Your task to perform on an android device: change alarm snooze length Image 0: 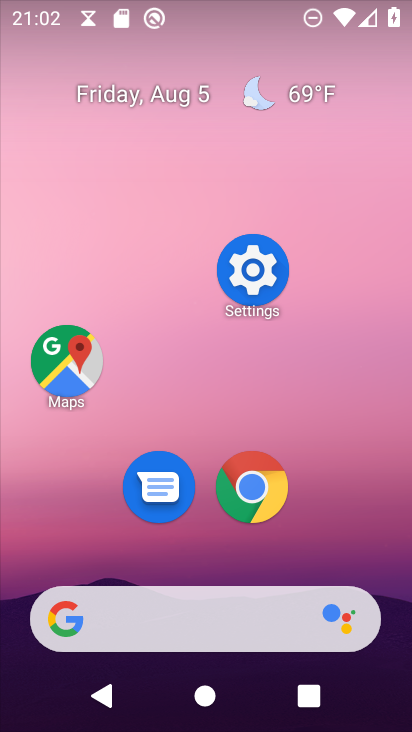
Step 0: drag from (174, 639) to (297, 83)
Your task to perform on an android device: change alarm snooze length Image 1: 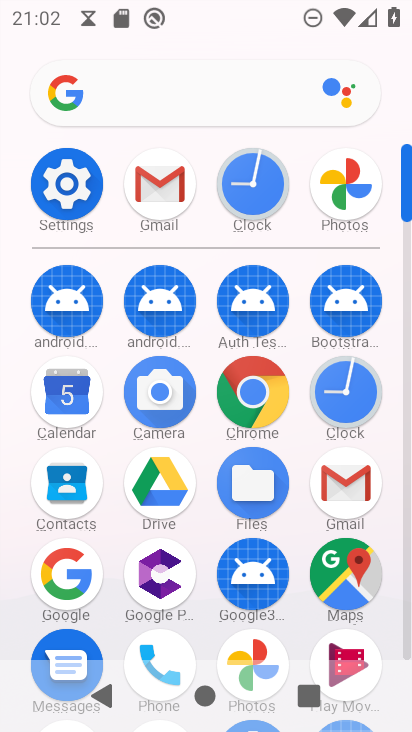
Step 1: click (349, 397)
Your task to perform on an android device: change alarm snooze length Image 2: 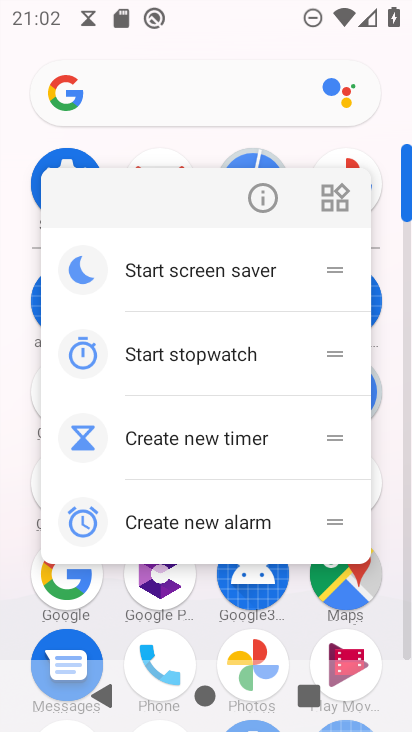
Step 2: click (377, 385)
Your task to perform on an android device: change alarm snooze length Image 3: 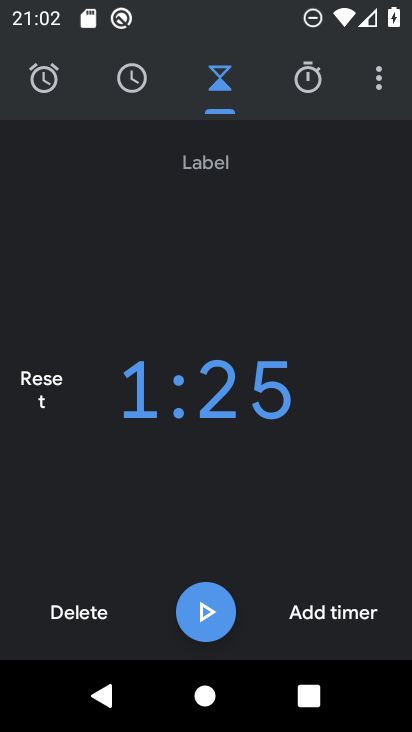
Step 3: click (378, 82)
Your task to perform on an android device: change alarm snooze length Image 4: 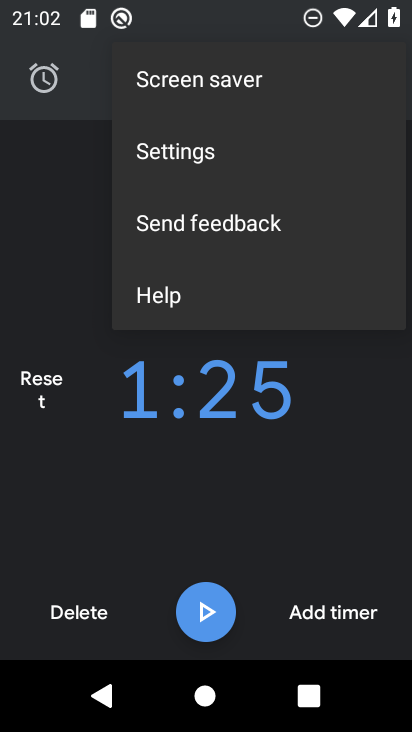
Step 4: click (180, 149)
Your task to perform on an android device: change alarm snooze length Image 5: 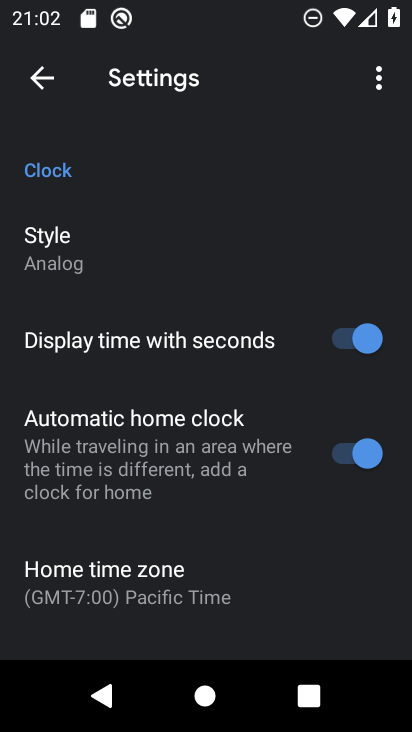
Step 5: drag from (271, 572) to (363, 206)
Your task to perform on an android device: change alarm snooze length Image 6: 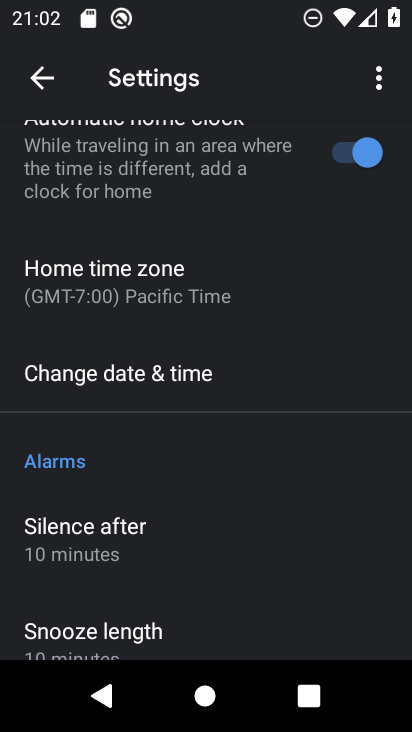
Step 6: drag from (246, 505) to (315, 305)
Your task to perform on an android device: change alarm snooze length Image 7: 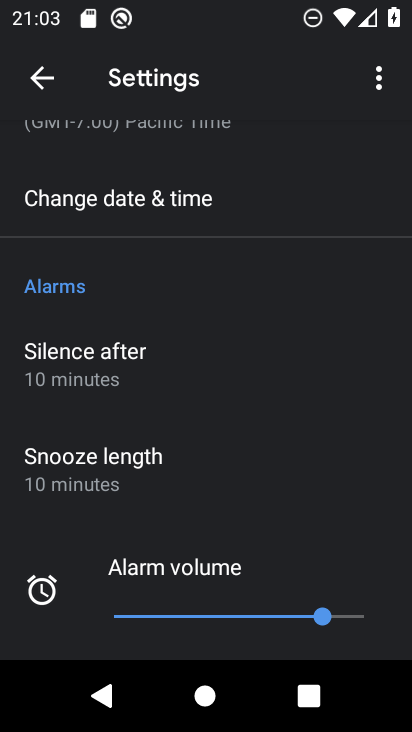
Step 7: click (127, 464)
Your task to perform on an android device: change alarm snooze length Image 8: 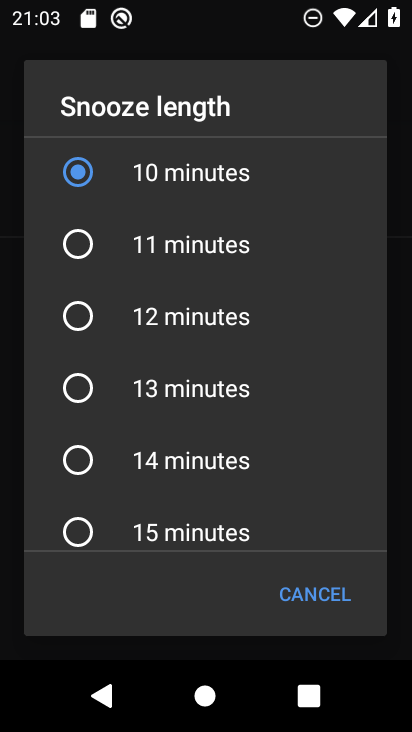
Step 8: click (82, 523)
Your task to perform on an android device: change alarm snooze length Image 9: 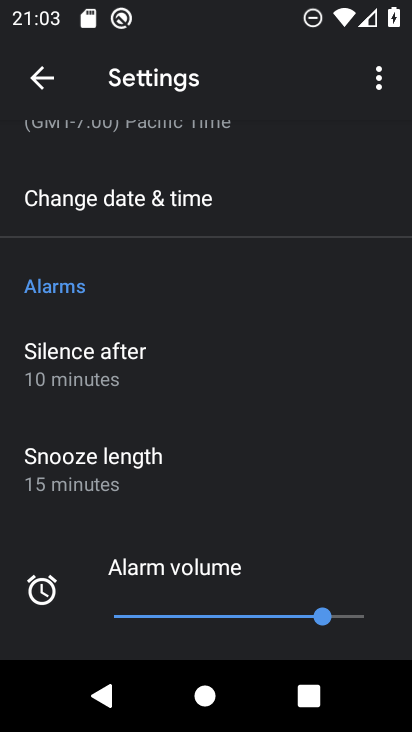
Step 9: task complete